Your task to perform on an android device: Add logitech g pro to the cart on bestbuy.com Image 0: 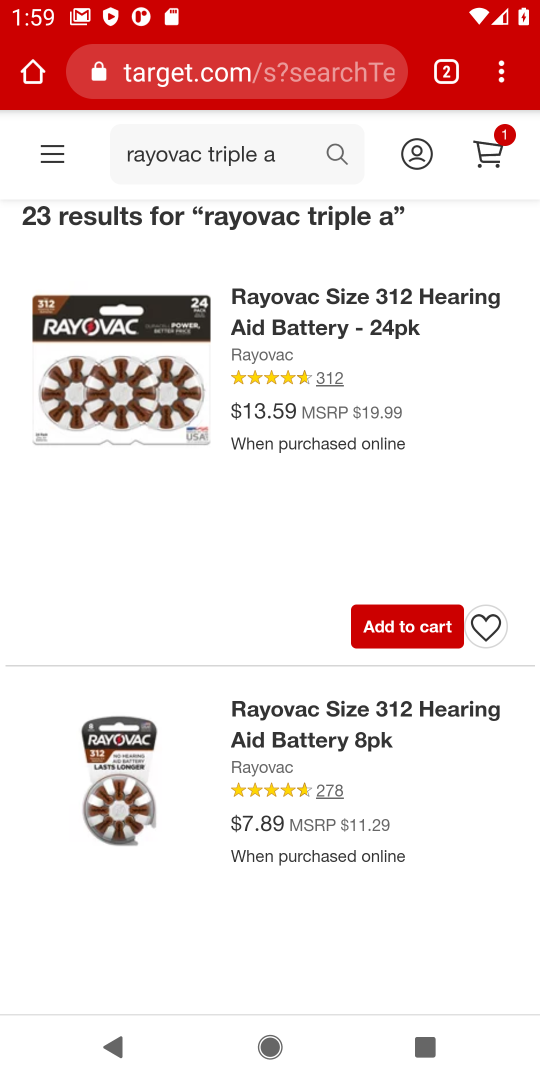
Step 0: click (236, 86)
Your task to perform on an android device: Add logitech g pro to the cart on bestbuy.com Image 1: 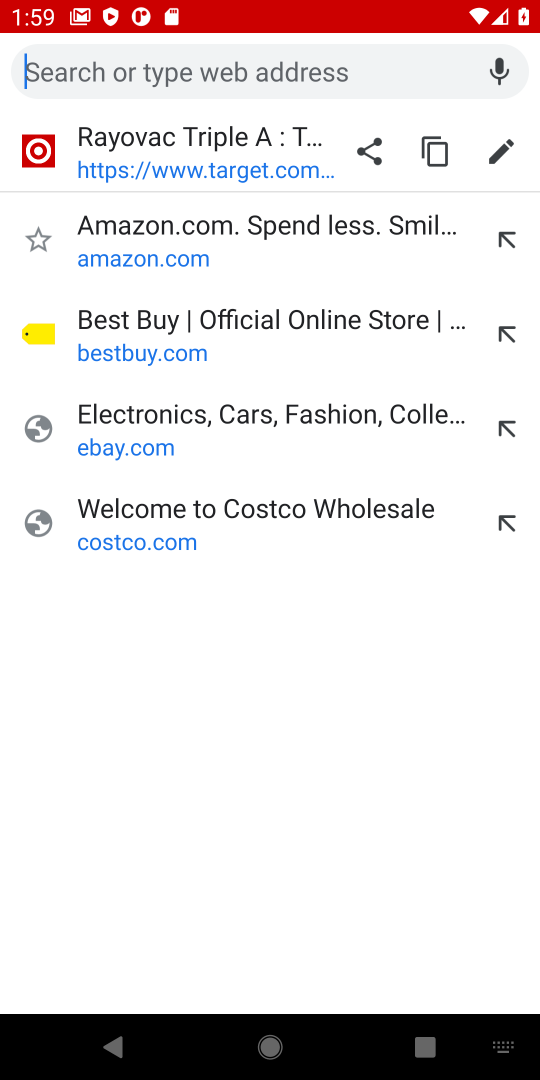
Step 1: click (185, 358)
Your task to perform on an android device: Add logitech g pro to the cart on bestbuy.com Image 2: 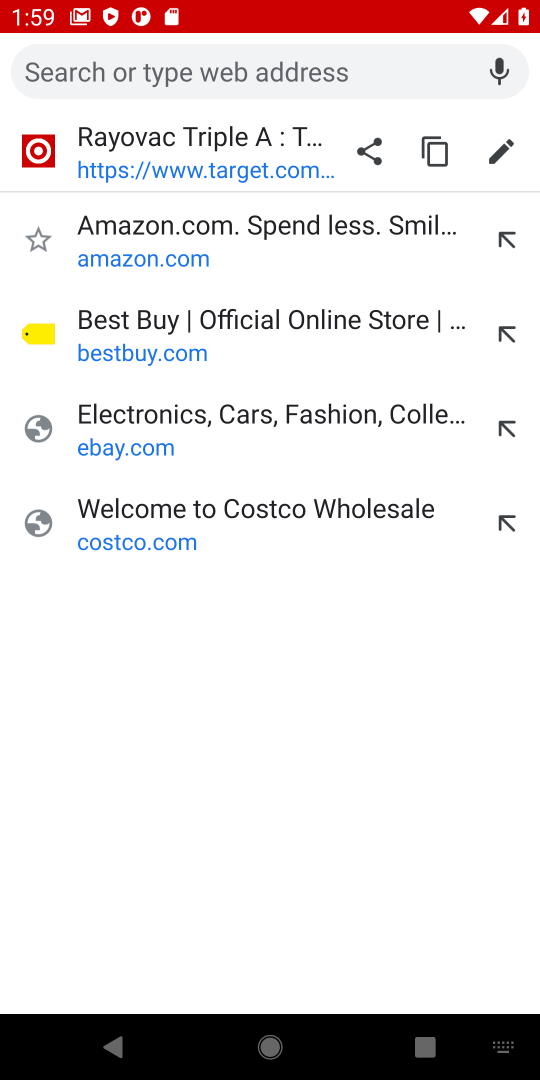
Step 2: click (147, 359)
Your task to perform on an android device: Add logitech g pro to the cart on bestbuy.com Image 3: 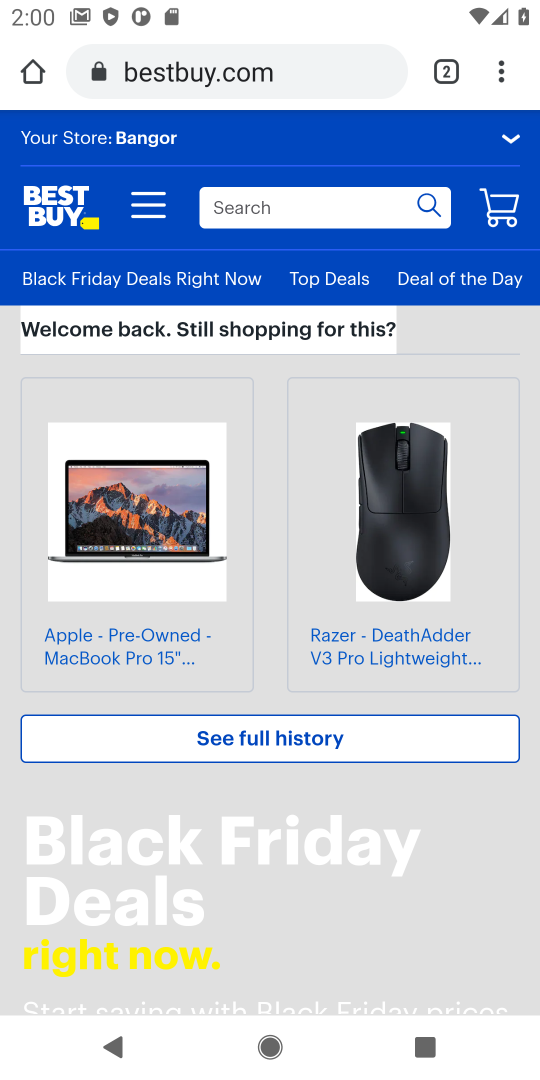
Step 3: click (268, 216)
Your task to perform on an android device: Add logitech g pro to the cart on bestbuy.com Image 4: 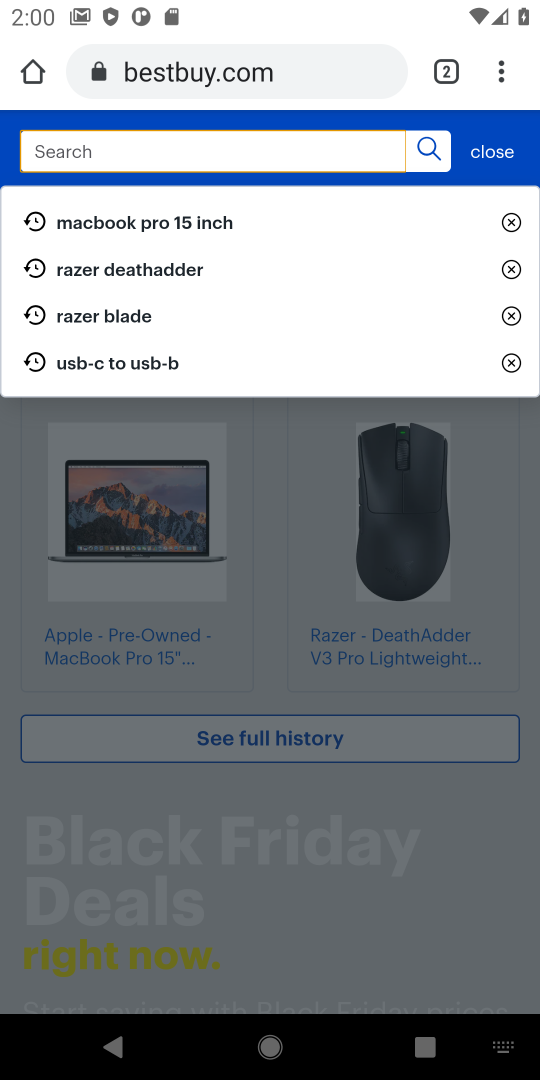
Step 4: type "logitech g pro"
Your task to perform on an android device: Add logitech g pro to the cart on bestbuy.com Image 5: 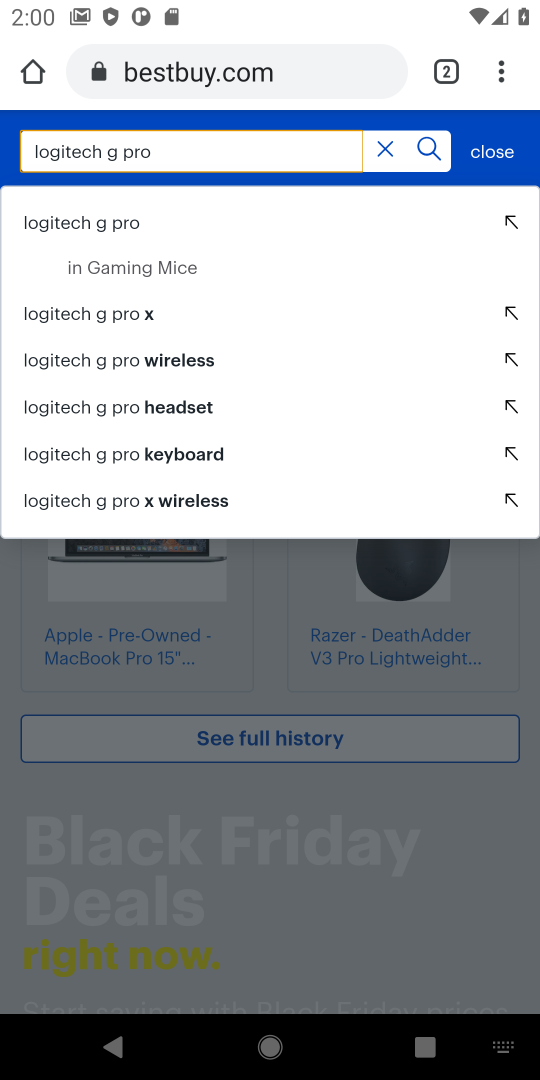
Step 5: click (78, 228)
Your task to perform on an android device: Add logitech g pro to the cart on bestbuy.com Image 6: 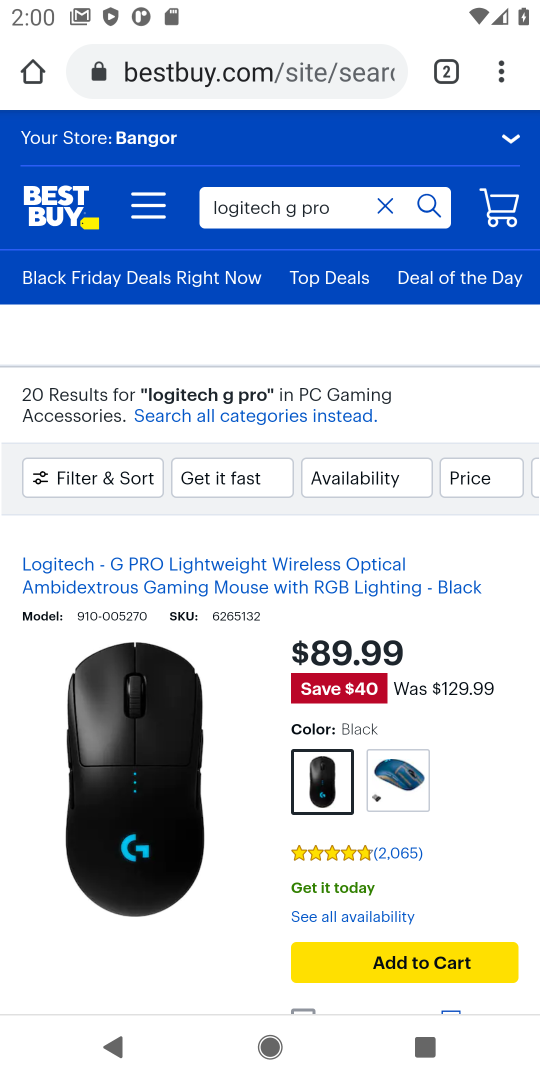
Step 6: drag from (244, 827) to (267, 585)
Your task to perform on an android device: Add logitech g pro to the cart on bestbuy.com Image 7: 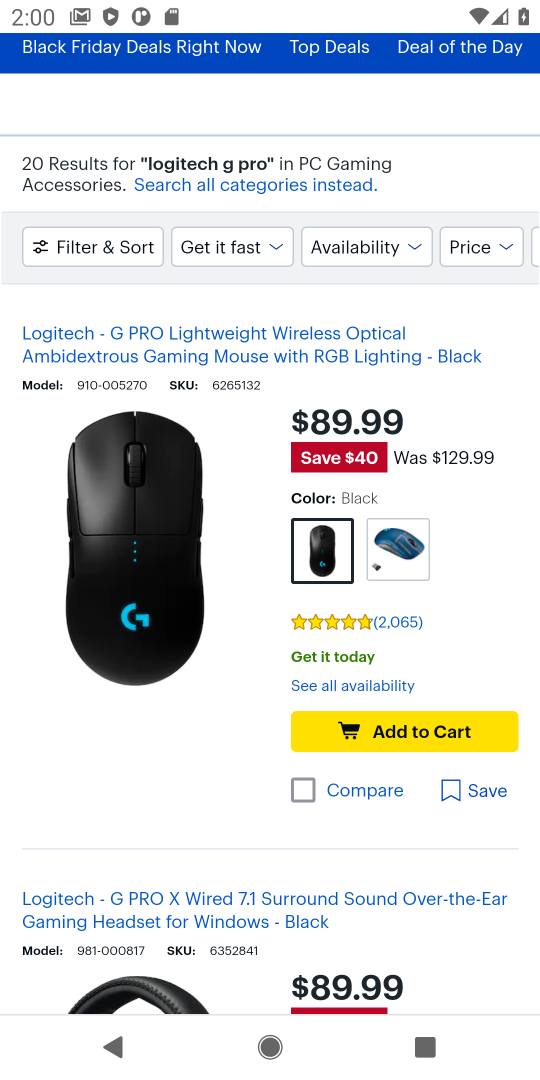
Step 7: click (410, 729)
Your task to perform on an android device: Add logitech g pro to the cart on bestbuy.com Image 8: 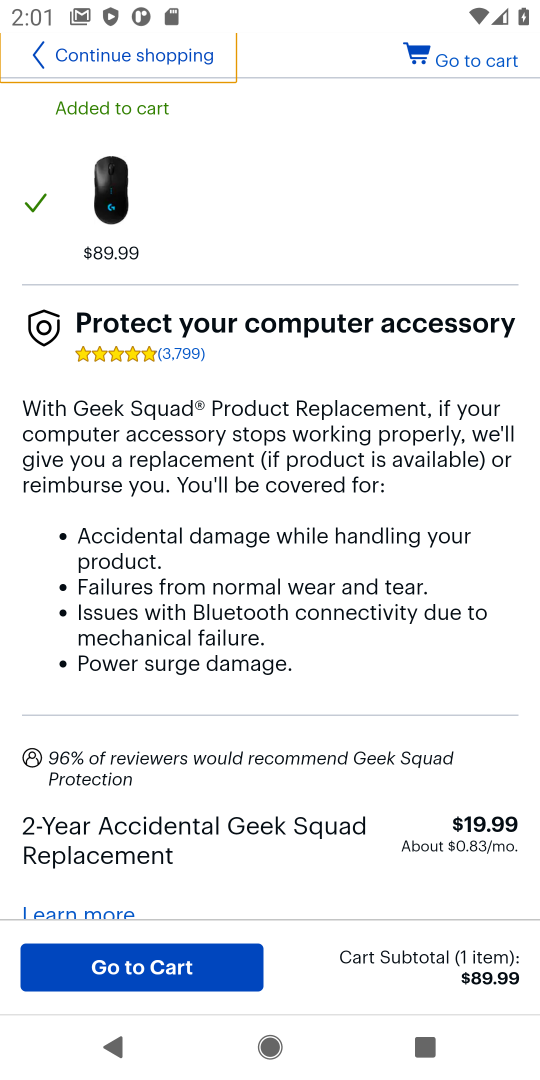
Step 8: task complete